Your task to perform on an android device: Add dell xps to the cart on costco, then select checkout. Image 0: 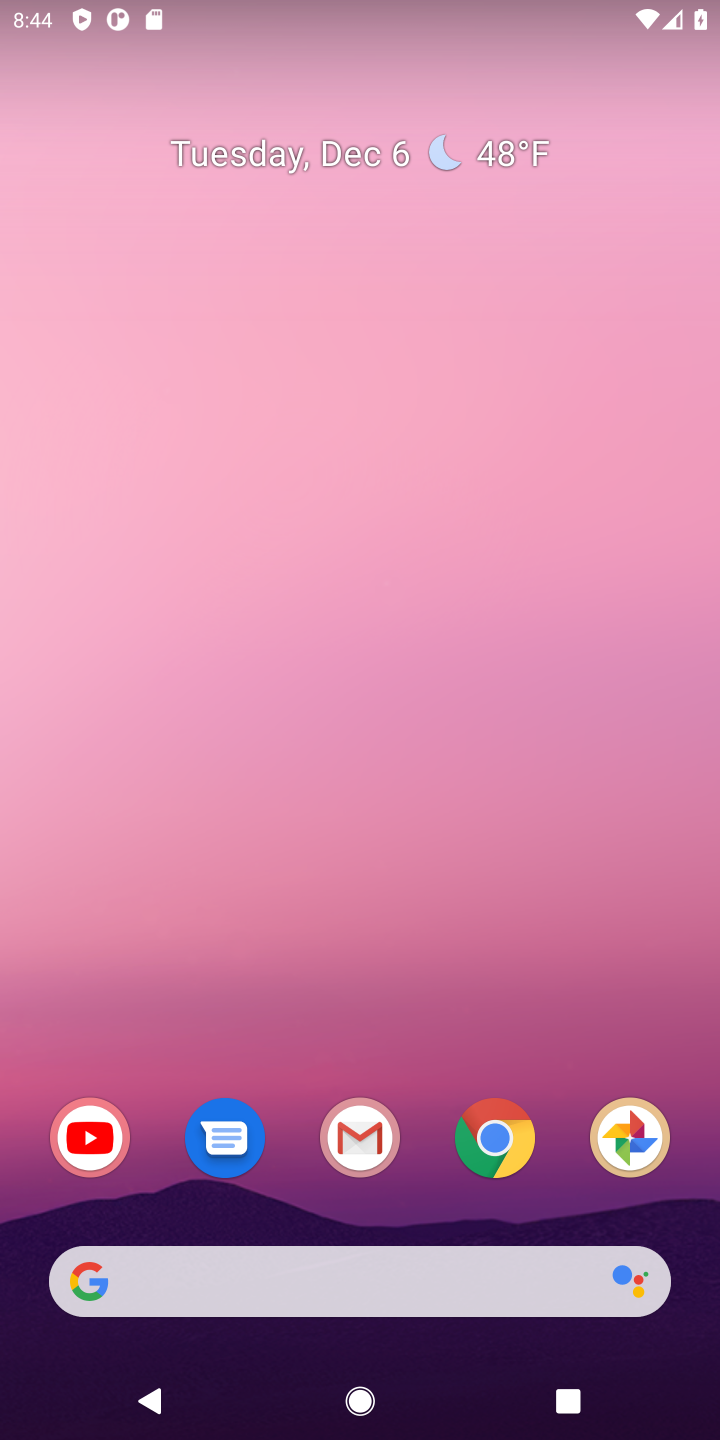
Step 0: click (502, 1143)
Your task to perform on an android device: Add dell xps to the cart on costco, then select checkout. Image 1: 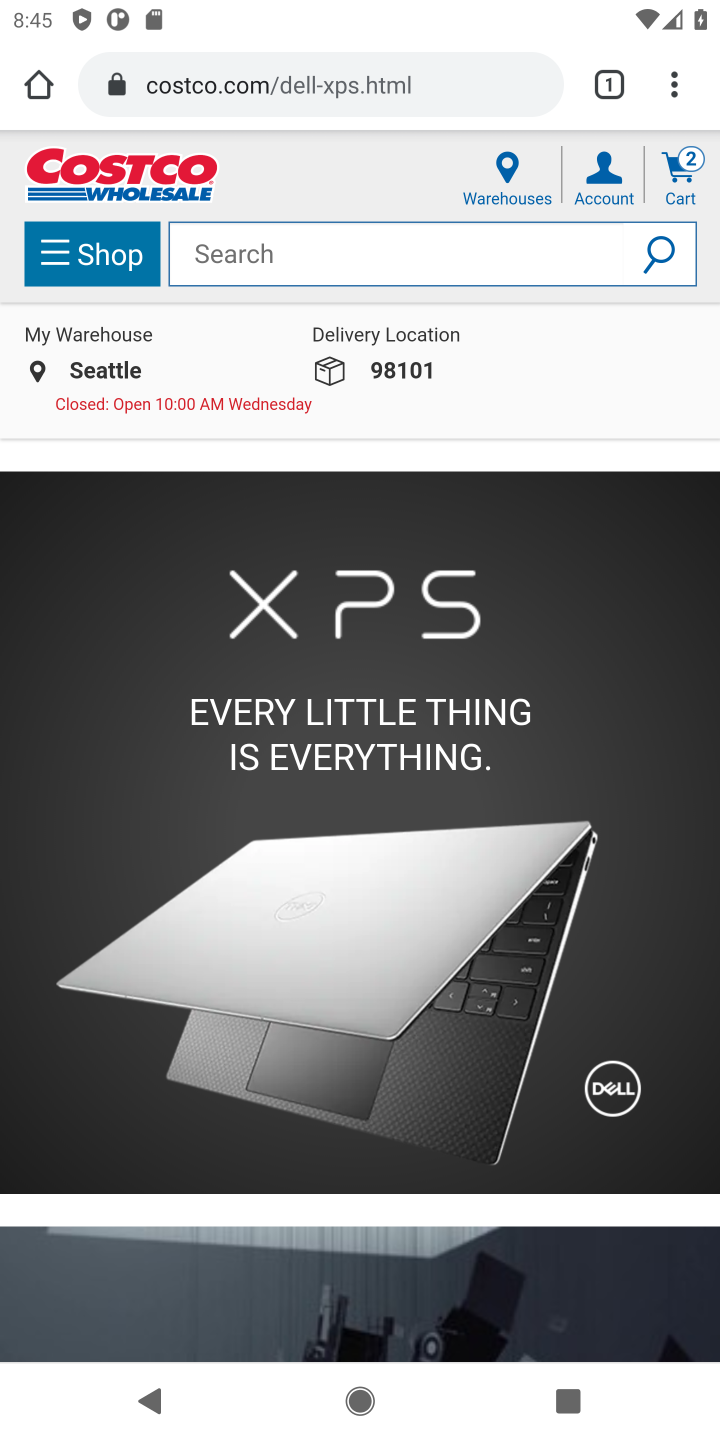
Step 1: click (304, 248)
Your task to perform on an android device: Add dell xps to the cart on costco, then select checkout. Image 2: 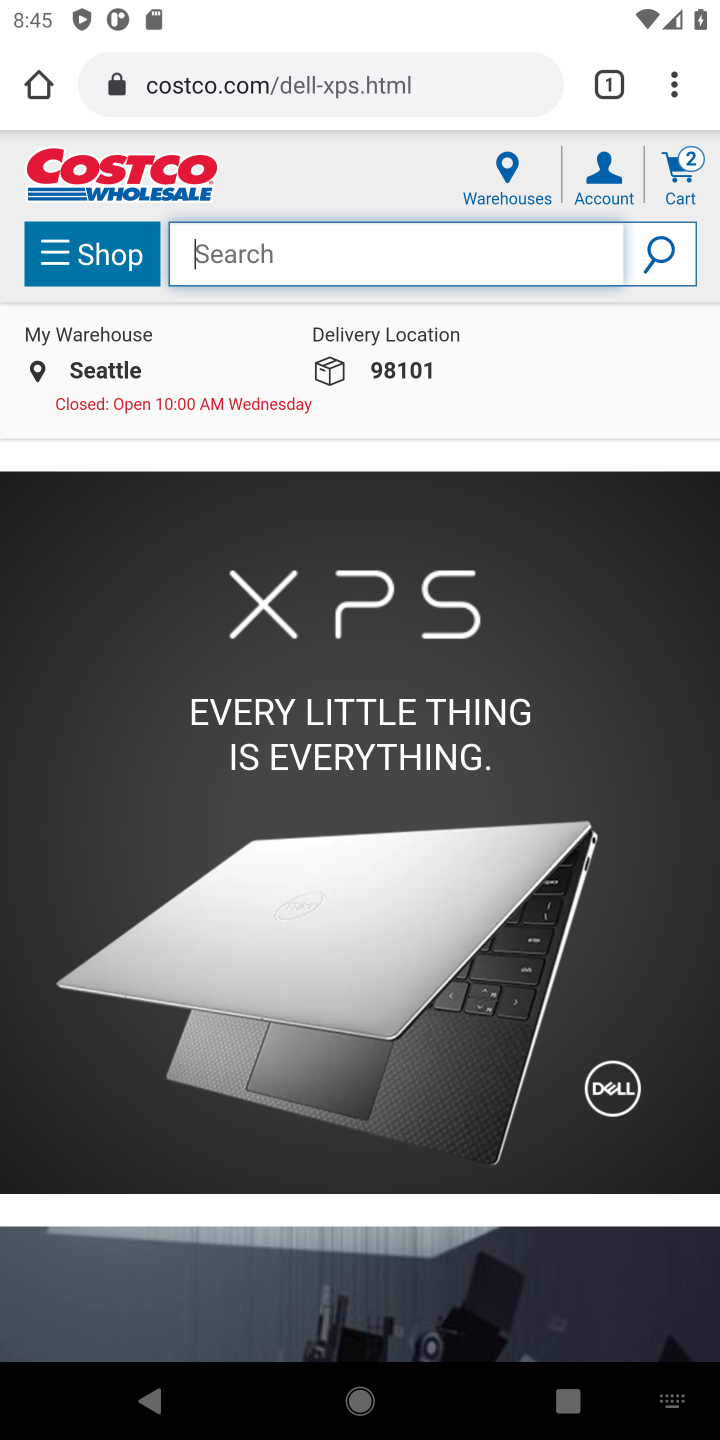
Step 2: type "dell xps"
Your task to perform on an android device: Add dell xps to the cart on costco, then select checkout. Image 3: 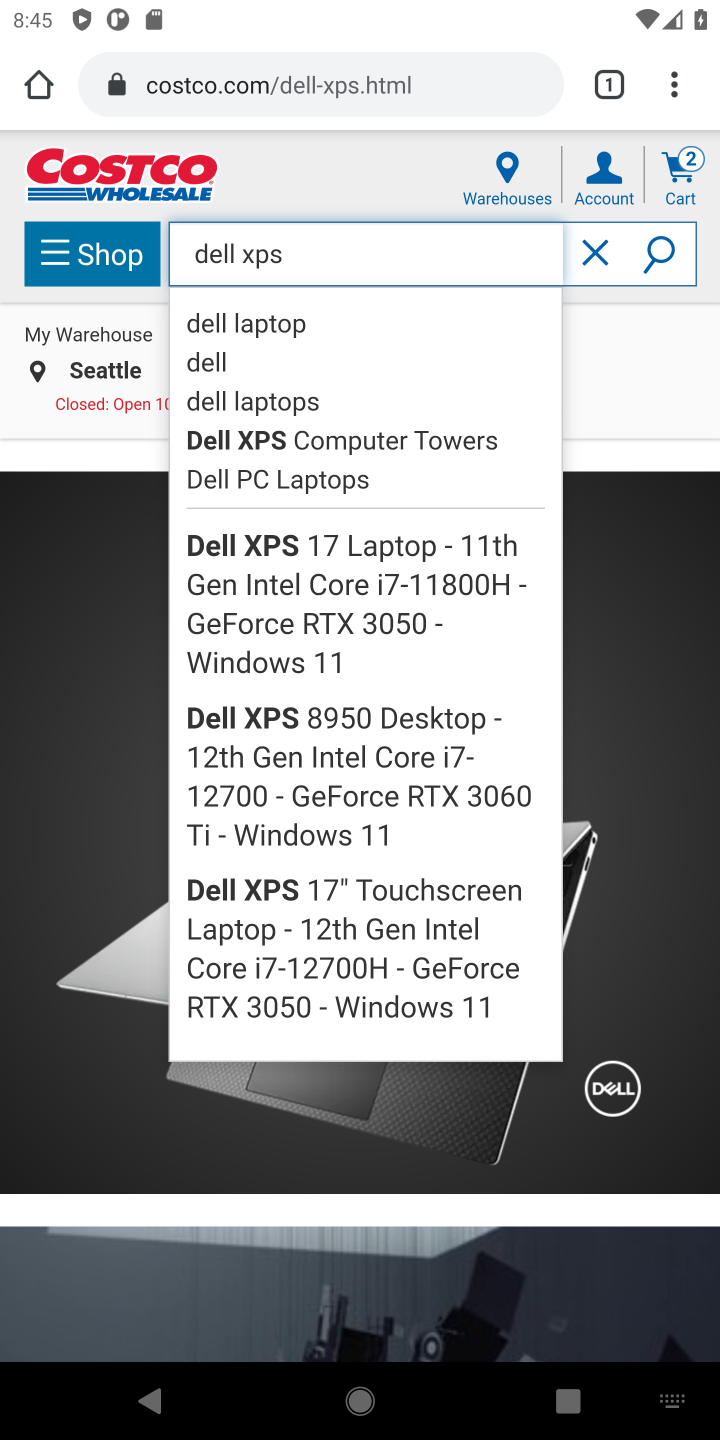
Step 3: click (652, 261)
Your task to perform on an android device: Add dell xps to the cart on costco, then select checkout. Image 4: 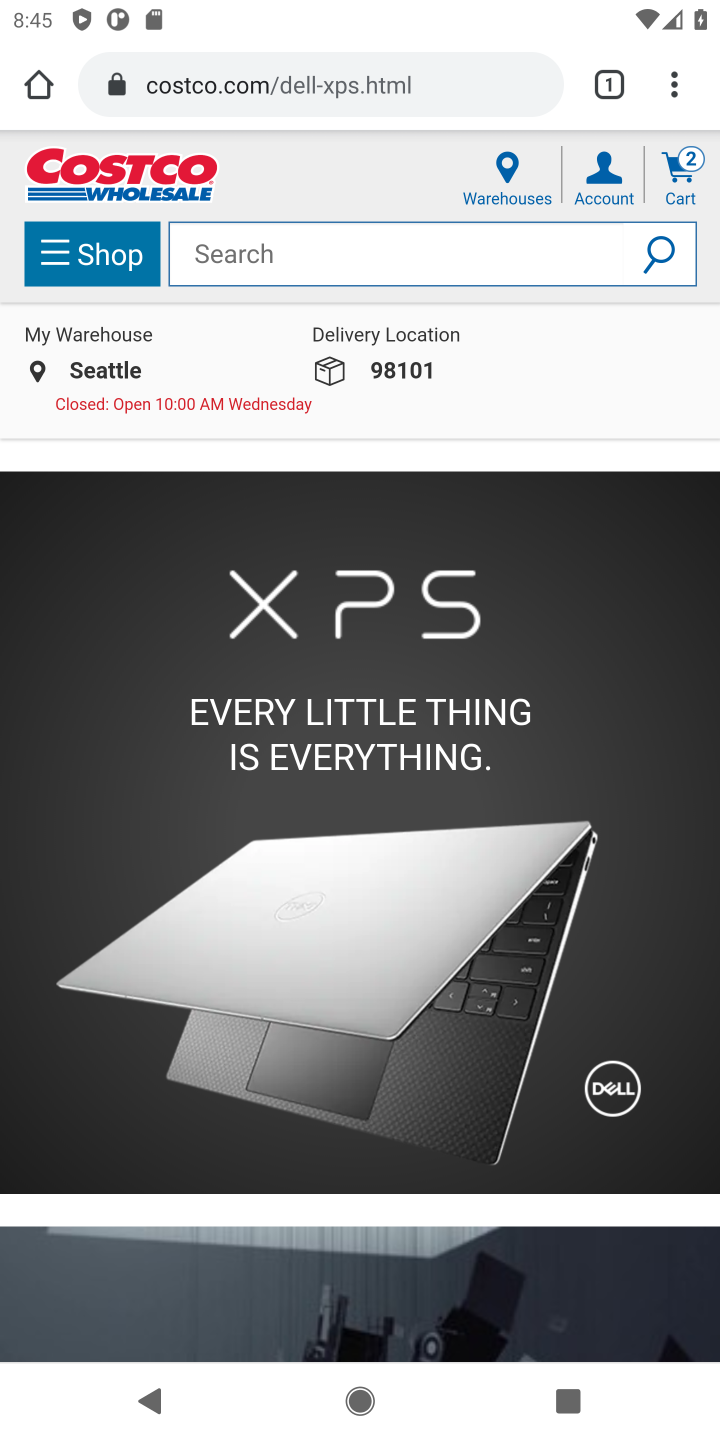
Step 4: task complete